Your task to perform on an android device: stop showing notifications on the lock screen Image 0: 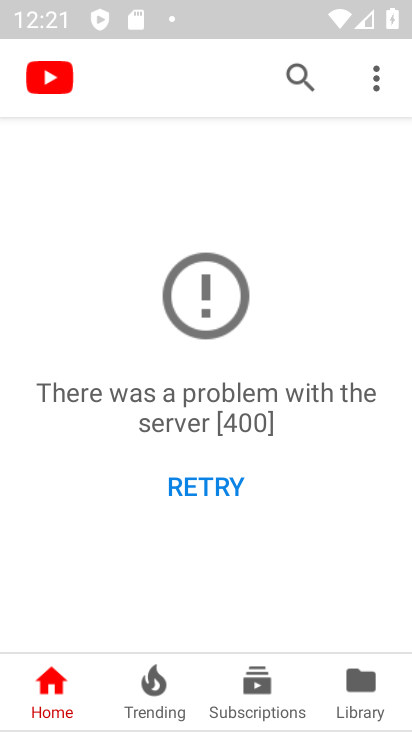
Step 0: press home button
Your task to perform on an android device: stop showing notifications on the lock screen Image 1: 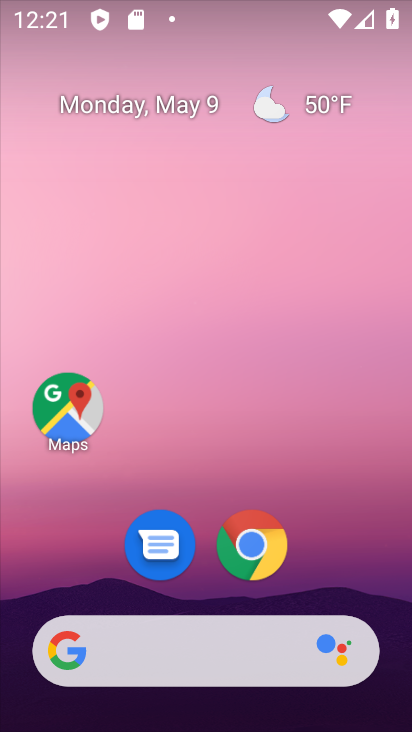
Step 1: drag from (201, 590) to (208, 217)
Your task to perform on an android device: stop showing notifications on the lock screen Image 2: 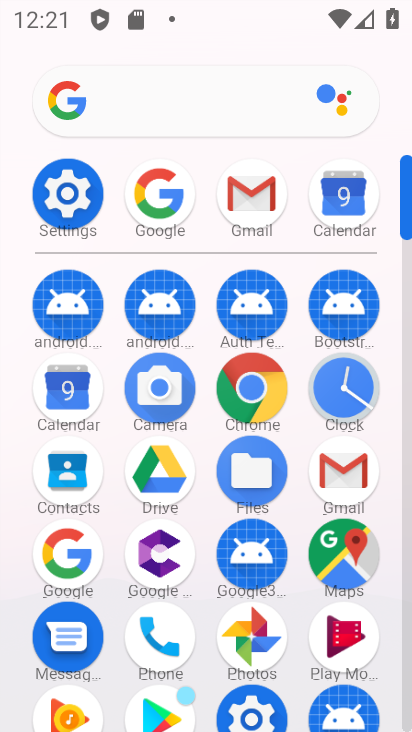
Step 2: click (70, 219)
Your task to perform on an android device: stop showing notifications on the lock screen Image 3: 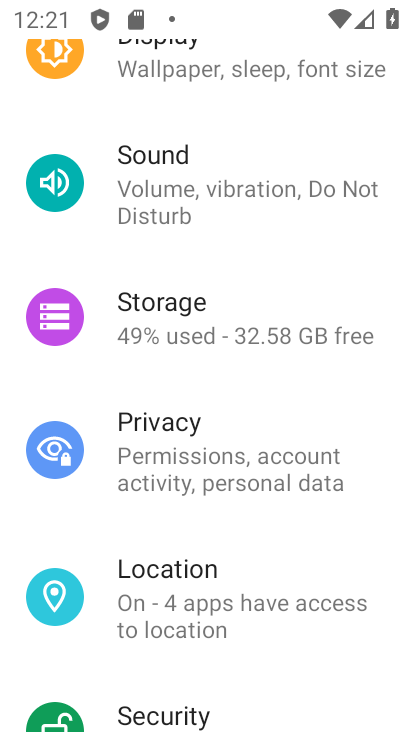
Step 3: drag from (225, 248) to (279, 530)
Your task to perform on an android device: stop showing notifications on the lock screen Image 4: 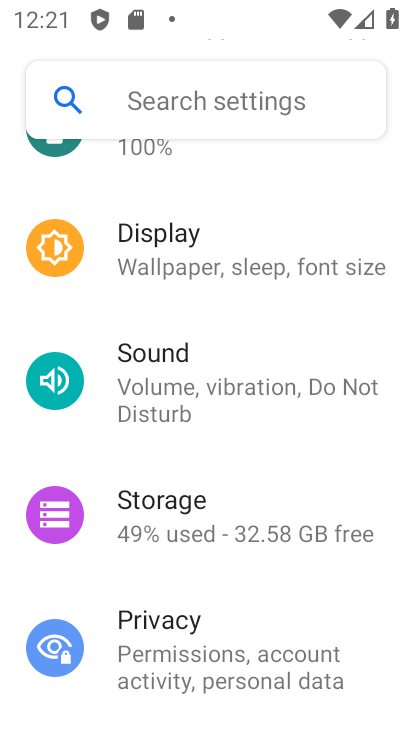
Step 4: drag from (226, 238) to (273, 569)
Your task to perform on an android device: stop showing notifications on the lock screen Image 5: 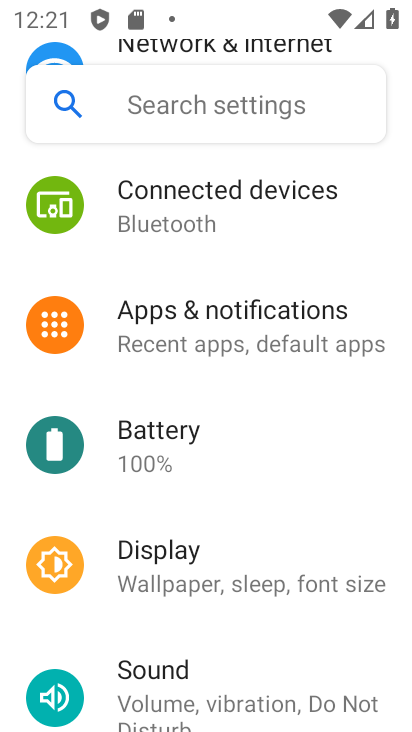
Step 5: click (215, 350)
Your task to perform on an android device: stop showing notifications on the lock screen Image 6: 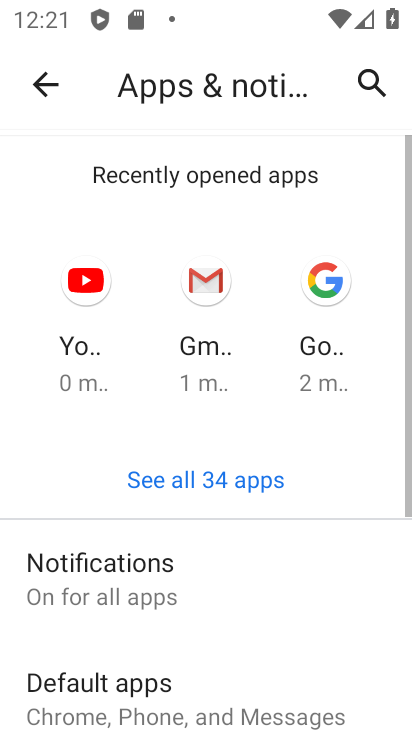
Step 6: drag from (274, 603) to (282, 423)
Your task to perform on an android device: stop showing notifications on the lock screen Image 7: 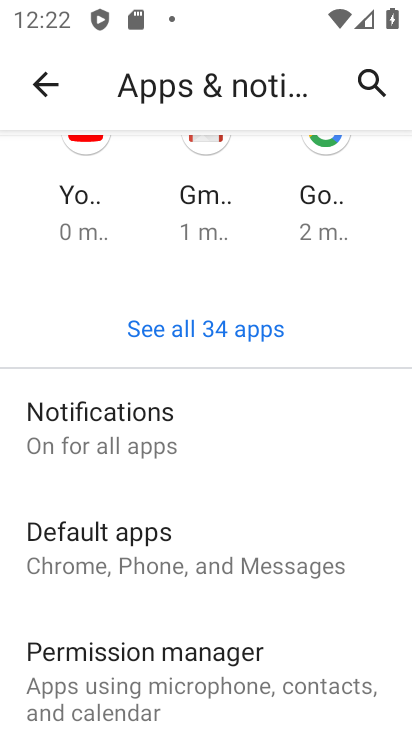
Step 7: click (217, 446)
Your task to perform on an android device: stop showing notifications on the lock screen Image 8: 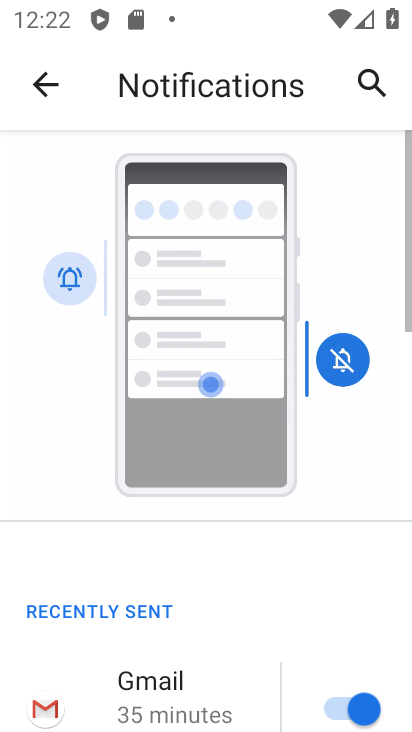
Step 8: drag from (171, 611) to (170, 227)
Your task to perform on an android device: stop showing notifications on the lock screen Image 9: 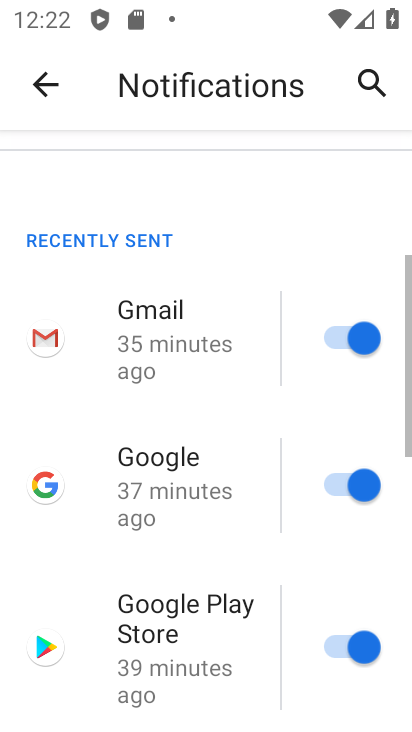
Step 9: drag from (214, 568) to (176, 226)
Your task to perform on an android device: stop showing notifications on the lock screen Image 10: 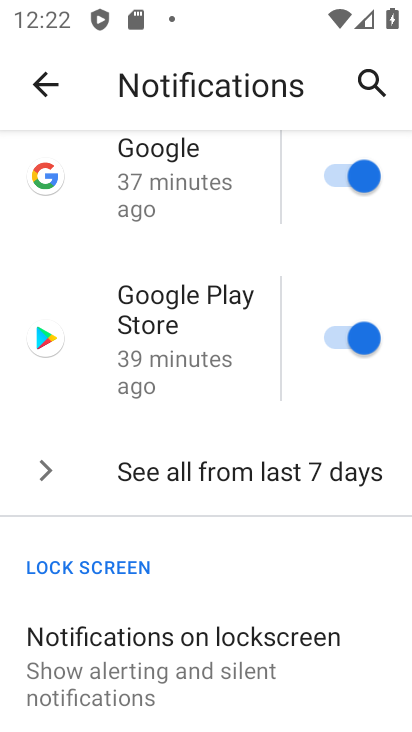
Step 10: click (228, 646)
Your task to perform on an android device: stop showing notifications on the lock screen Image 11: 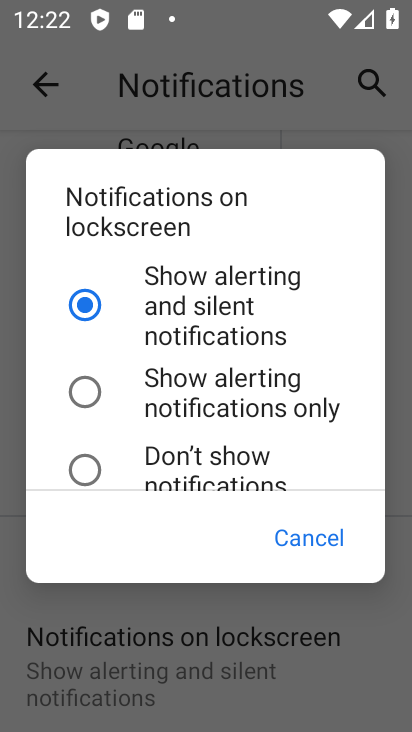
Step 11: click (175, 447)
Your task to perform on an android device: stop showing notifications on the lock screen Image 12: 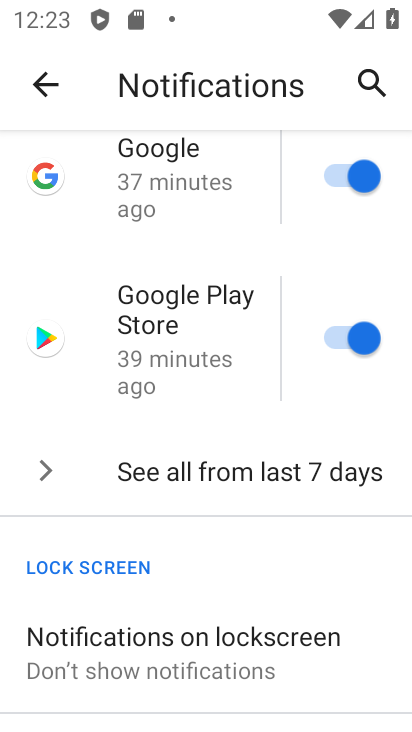
Step 12: task complete